Your task to perform on an android device: Open sound settings Image 0: 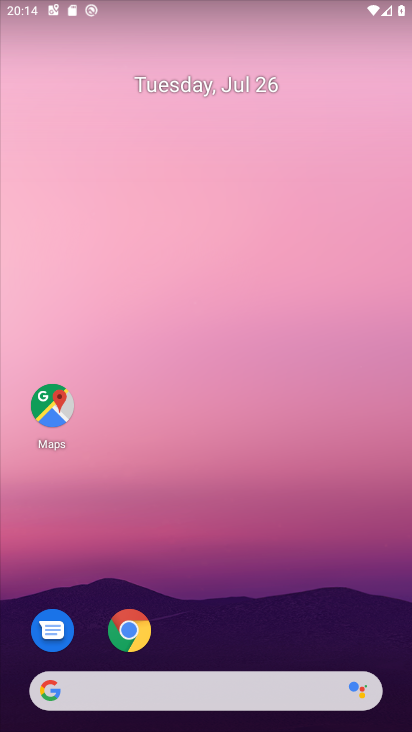
Step 0: drag from (400, 719) to (393, 61)
Your task to perform on an android device: Open sound settings Image 1: 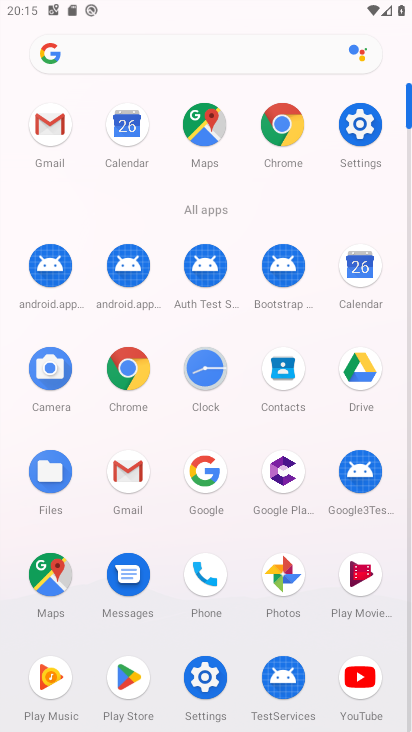
Step 1: click (360, 122)
Your task to perform on an android device: Open sound settings Image 2: 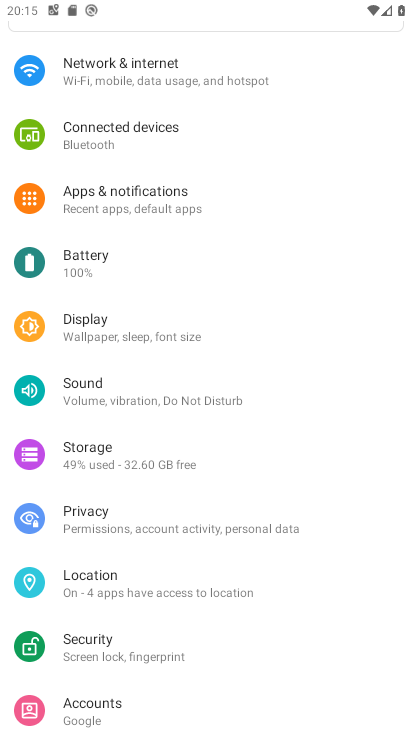
Step 2: click (75, 388)
Your task to perform on an android device: Open sound settings Image 3: 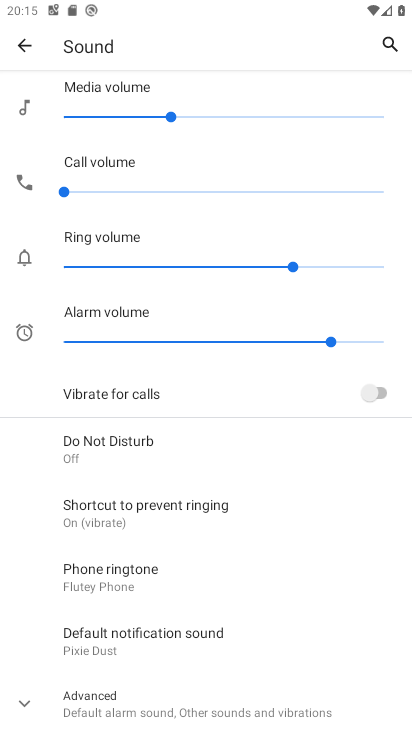
Step 3: task complete